Your task to perform on an android device: Go to Amazon Image 0: 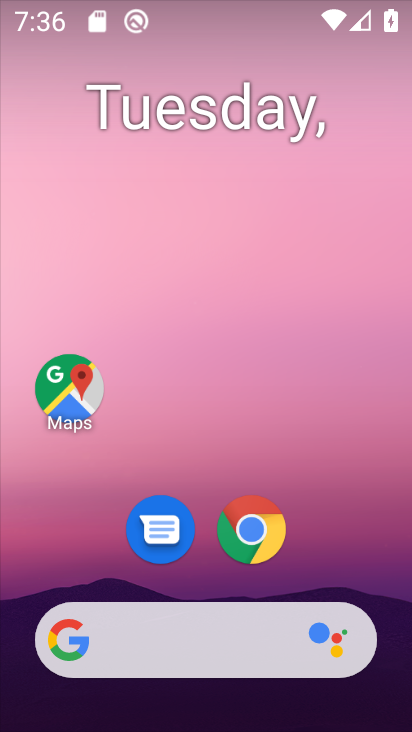
Step 0: click (257, 514)
Your task to perform on an android device: Go to Amazon Image 1: 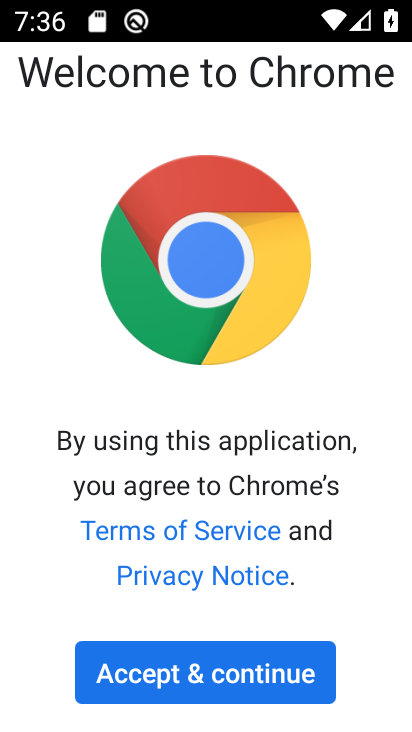
Step 1: click (235, 676)
Your task to perform on an android device: Go to Amazon Image 2: 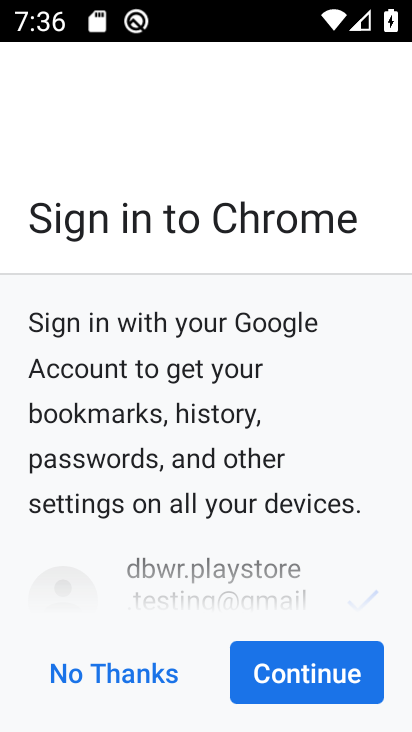
Step 2: click (291, 679)
Your task to perform on an android device: Go to Amazon Image 3: 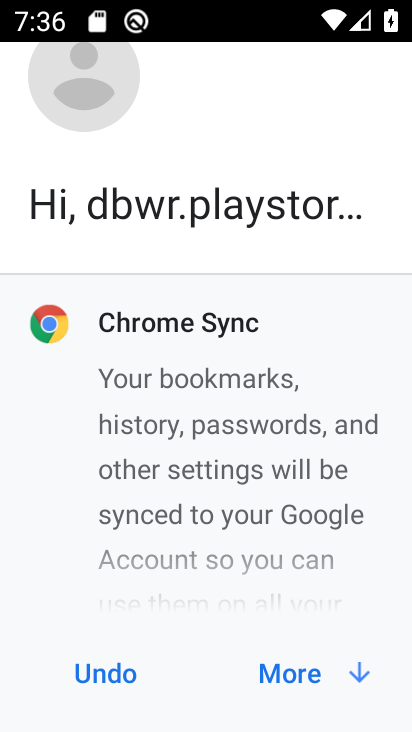
Step 3: click (296, 669)
Your task to perform on an android device: Go to Amazon Image 4: 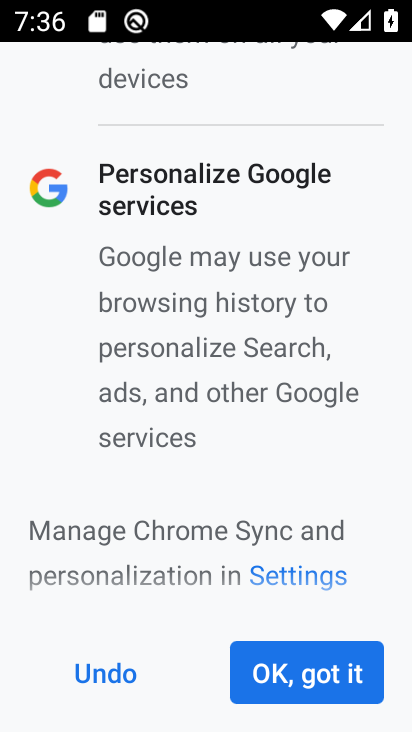
Step 4: click (298, 675)
Your task to perform on an android device: Go to Amazon Image 5: 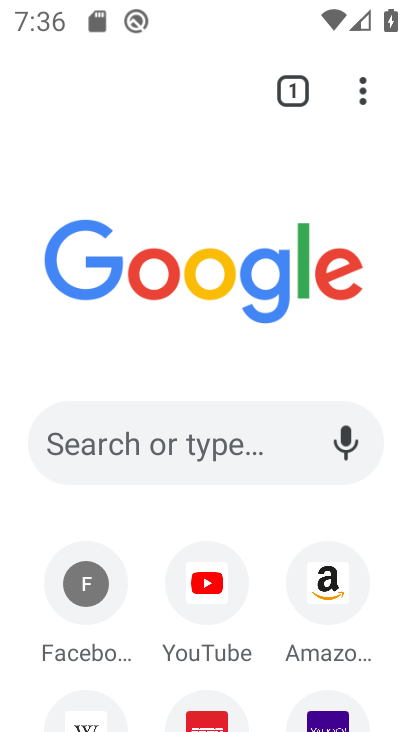
Step 5: click (328, 569)
Your task to perform on an android device: Go to Amazon Image 6: 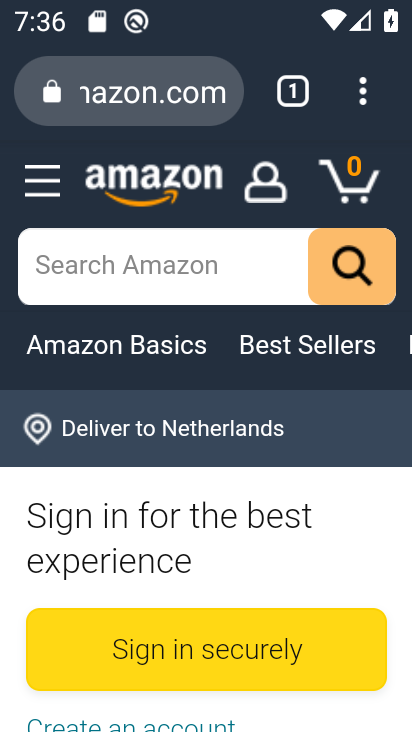
Step 6: task complete